Your task to perform on an android device: turn on priority inbox in the gmail app Image 0: 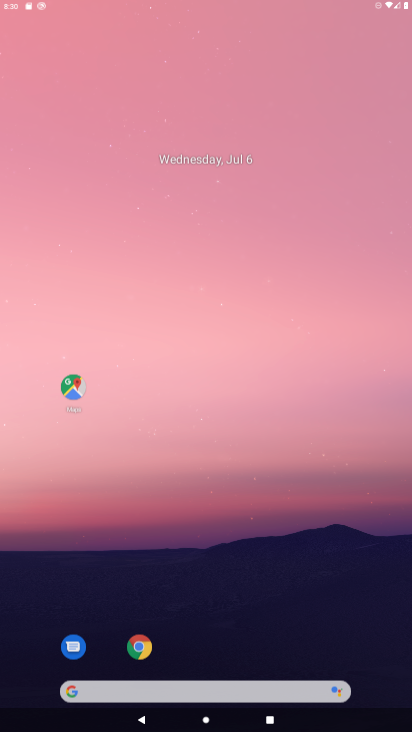
Step 0: click (165, 78)
Your task to perform on an android device: turn on priority inbox in the gmail app Image 1: 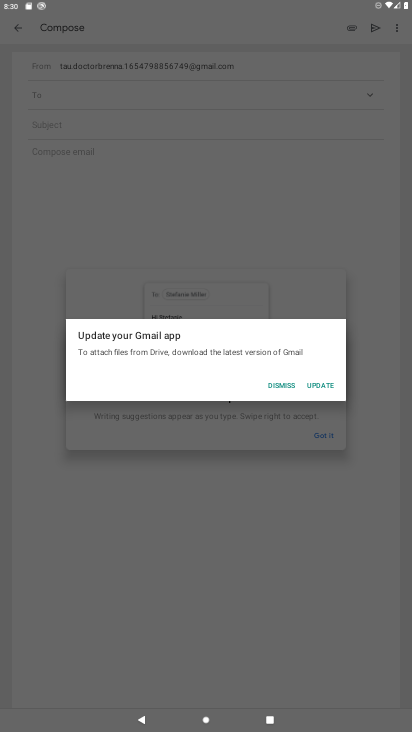
Step 1: click (287, 387)
Your task to perform on an android device: turn on priority inbox in the gmail app Image 2: 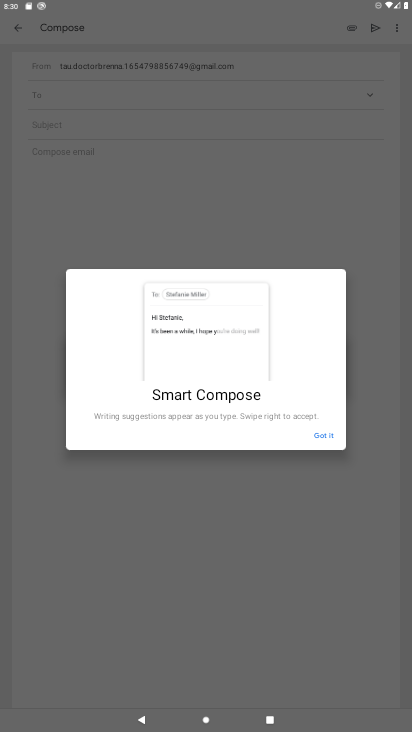
Step 2: click (321, 434)
Your task to perform on an android device: turn on priority inbox in the gmail app Image 3: 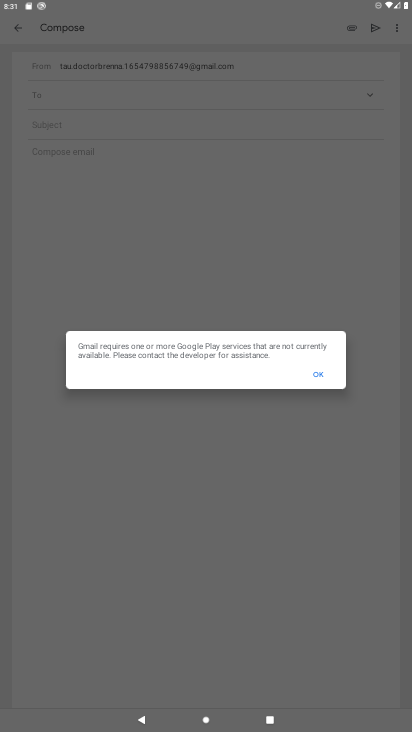
Step 3: click (321, 358)
Your task to perform on an android device: turn on priority inbox in the gmail app Image 4: 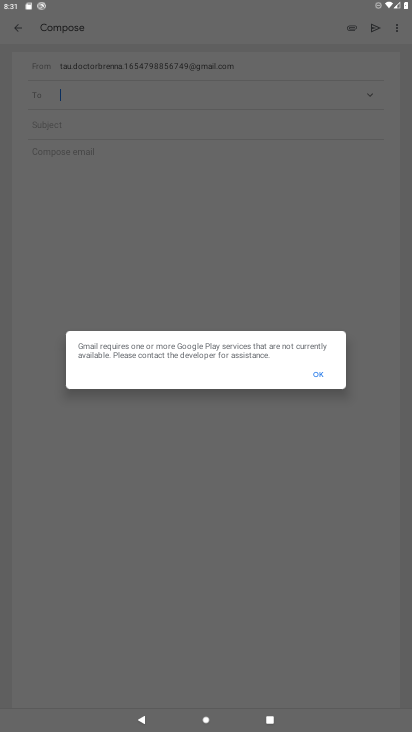
Step 4: click (322, 374)
Your task to perform on an android device: turn on priority inbox in the gmail app Image 5: 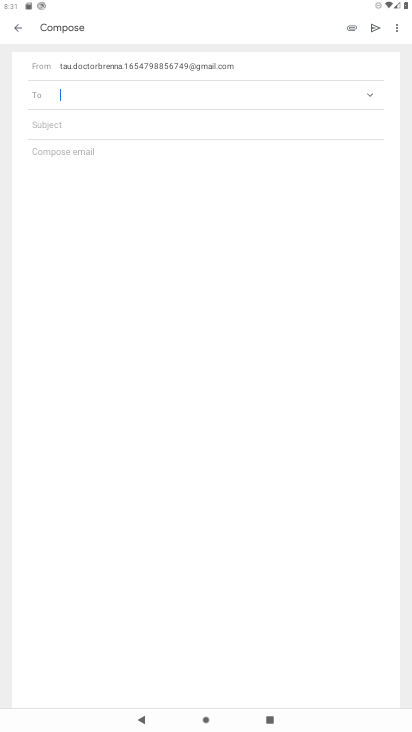
Step 5: click (18, 35)
Your task to perform on an android device: turn on priority inbox in the gmail app Image 6: 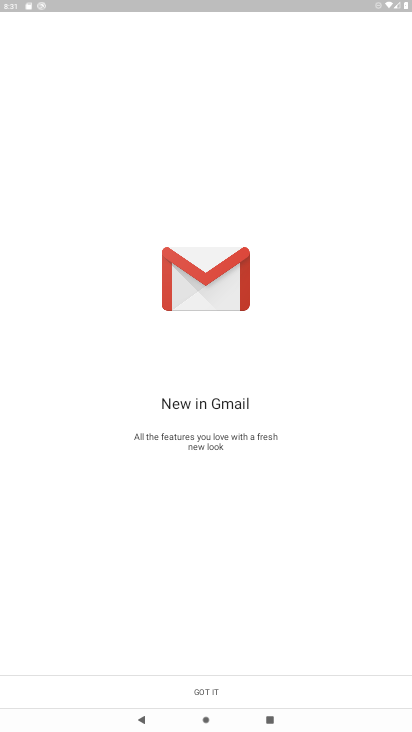
Step 6: click (215, 686)
Your task to perform on an android device: turn on priority inbox in the gmail app Image 7: 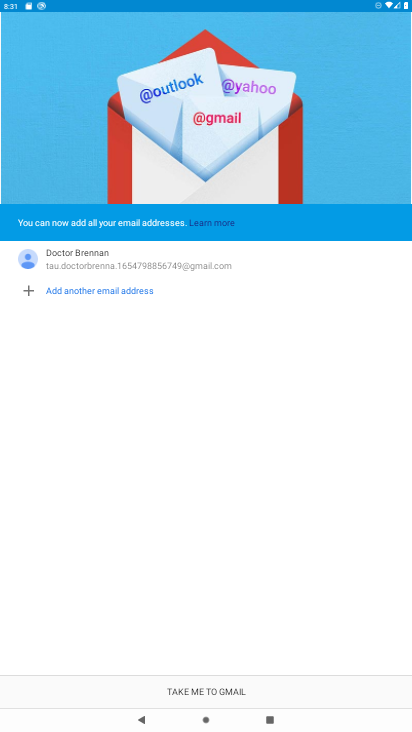
Step 7: click (228, 678)
Your task to perform on an android device: turn on priority inbox in the gmail app Image 8: 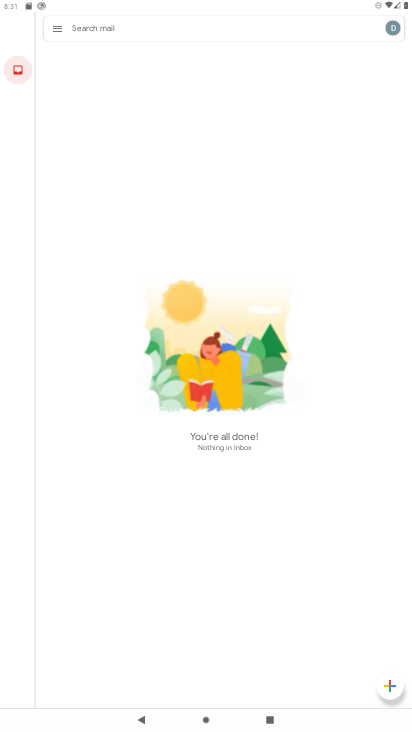
Step 8: click (64, 21)
Your task to perform on an android device: turn on priority inbox in the gmail app Image 9: 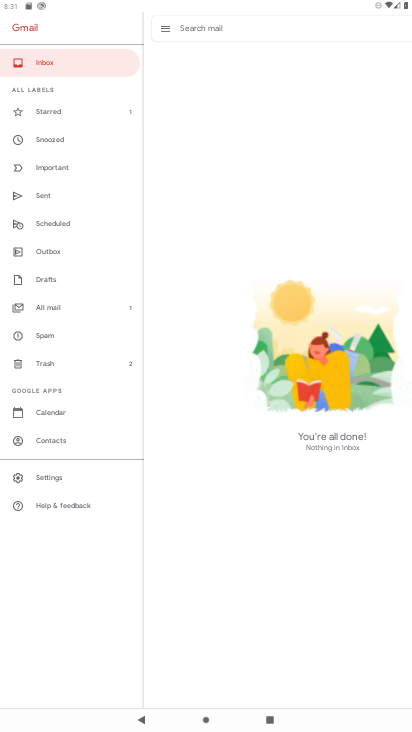
Step 9: click (52, 471)
Your task to perform on an android device: turn on priority inbox in the gmail app Image 10: 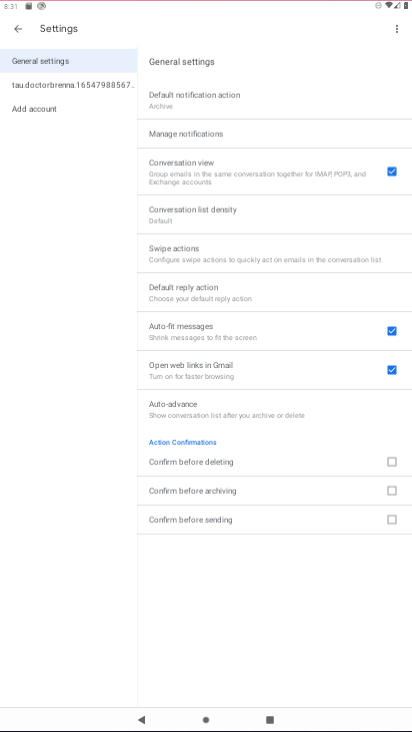
Step 10: click (42, 474)
Your task to perform on an android device: turn on priority inbox in the gmail app Image 11: 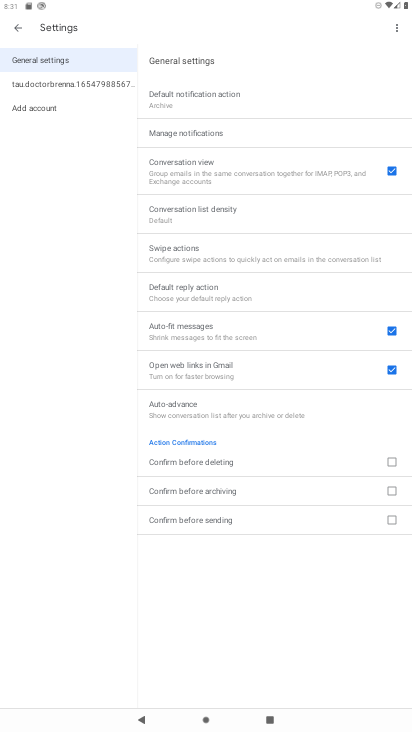
Step 11: click (67, 89)
Your task to perform on an android device: turn on priority inbox in the gmail app Image 12: 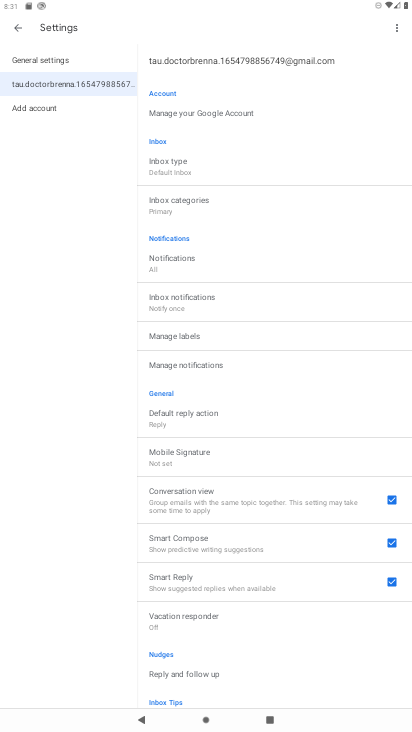
Step 12: drag from (227, 616) to (211, 348)
Your task to perform on an android device: turn on priority inbox in the gmail app Image 13: 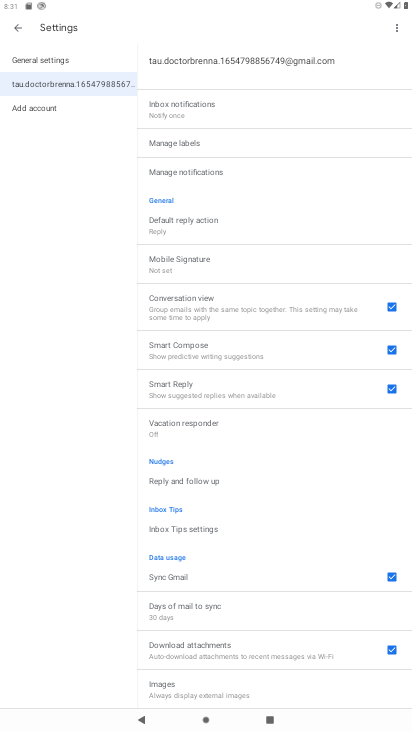
Step 13: drag from (205, 218) to (276, 587)
Your task to perform on an android device: turn on priority inbox in the gmail app Image 14: 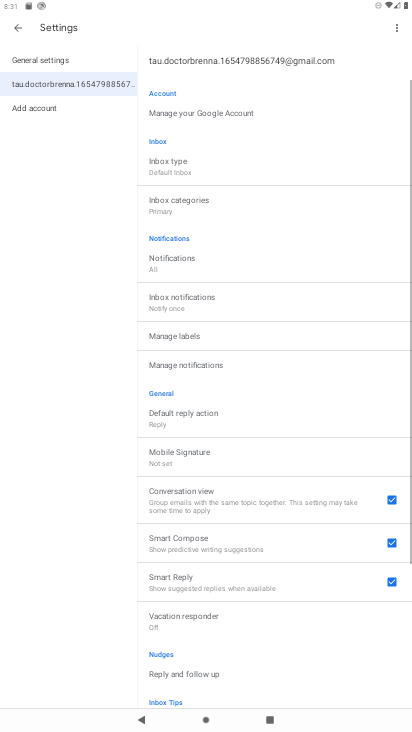
Step 14: drag from (197, 226) to (260, 589)
Your task to perform on an android device: turn on priority inbox in the gmail app Image 15: 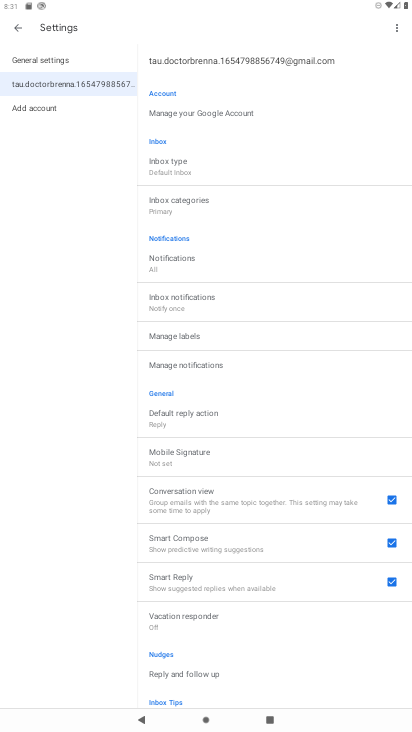
Step 15: click (163, 172)
Your task to perform on an android device: turn on priority inbox in the gmail app Image 16: 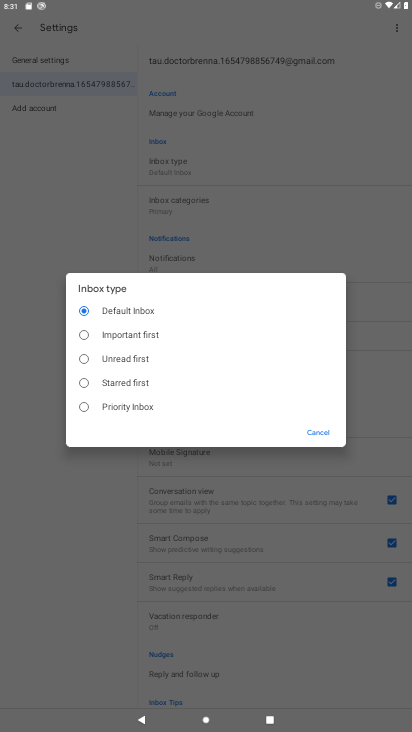
Step 16: click (83, 403)
Your task to perform on an android device: turn on priority inbox in the gmail app Image 17: 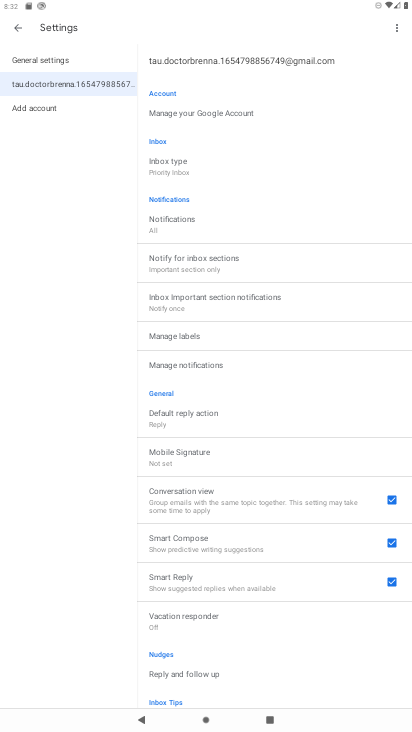
Step 17: task complete